Your task to perform on an android device: Google the capital of Bolivia Image 0: 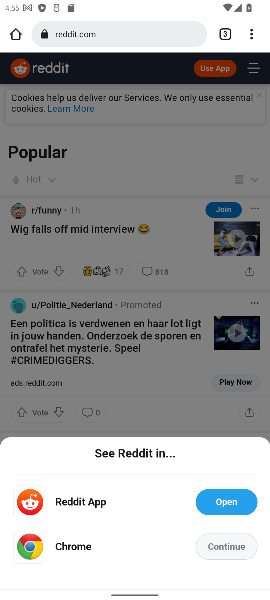
Step 0: click (131, 37)
Your task to perform on an android device: Google the capital of Bolivia Image 1: 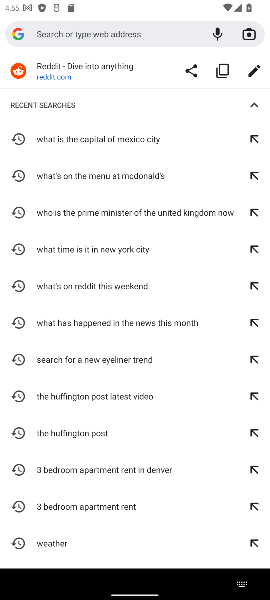
Step 1: type "Google the capital of Bolivia"
Your task to perform on an android device: Google the capital of Bolivia Image 2: 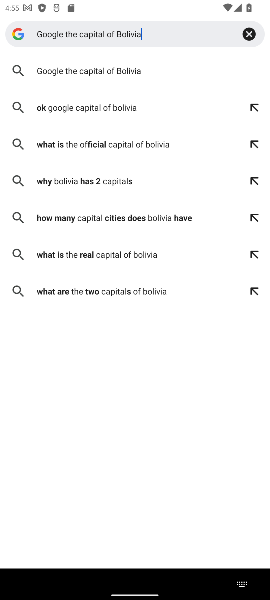
Step 2: click (133, 73)
Your task to perform on an android device: Google the capital of Bolivia Image 3: 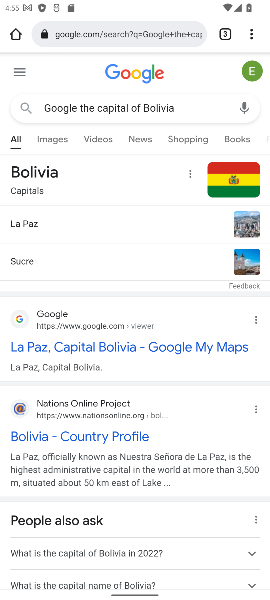
Step 3: click (98, 434)
Your task to perform on an android device: Google the capital of Bolivia Image 4: 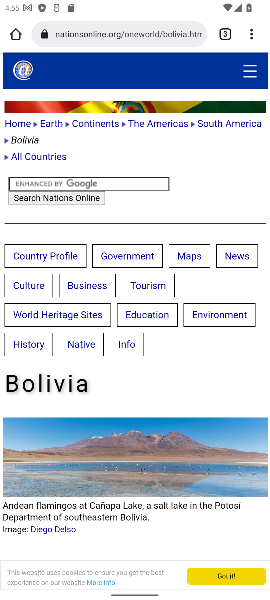
Step 4: task complete